Your task to perform on an android device: Open Yahoo.com Image 0: 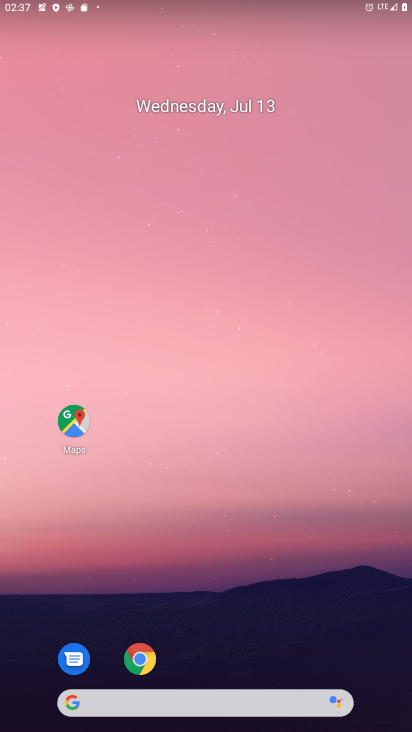
Step 0: drag from (231, 729) to (228, 89)
Your task to perform on an android device: Open Yahoo.com Image 1: 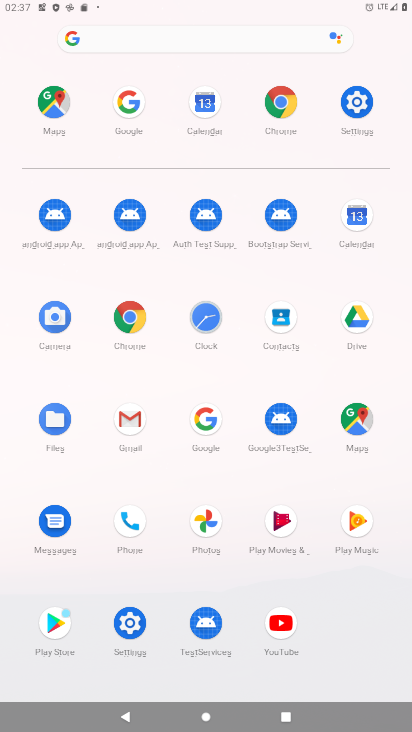
Step 1: click (280, 102)
Your task to perform on an android device: Open Yahoo.com Image 2: 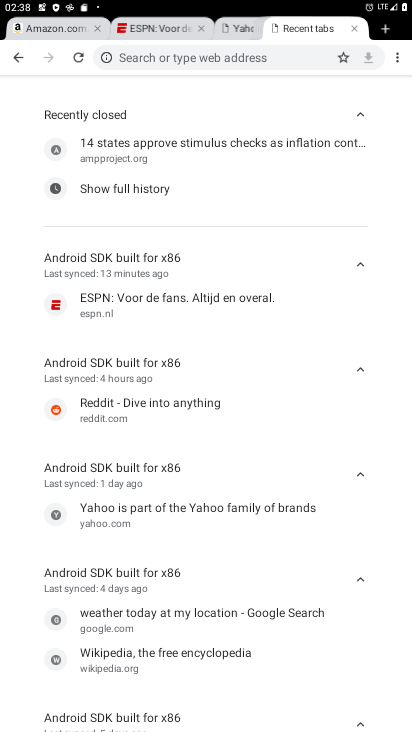
Step 2: click (400, 57)
Your task to perform on an android device: Open Yahoo.com Image 3: 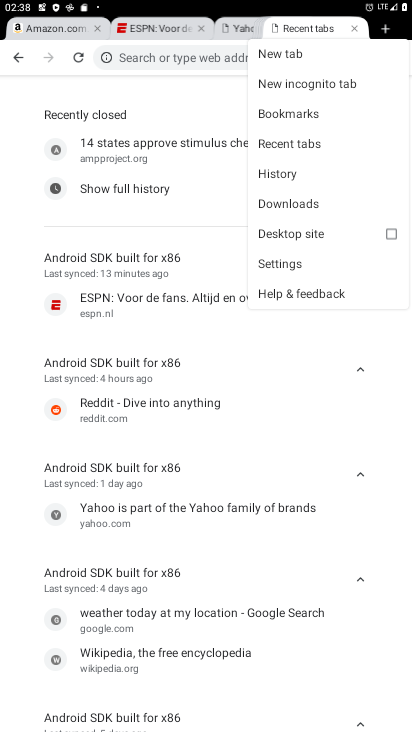
Step 3: click (271, 53)
Your task to perform on an android device: Open Yahoo.com Image 4: 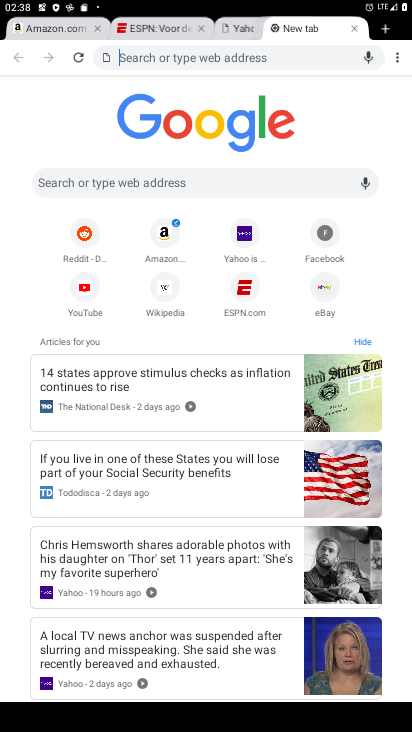
Step 4: click (243, 232)
Your task to perform on an android device: Open Yahoo.com Image 5: 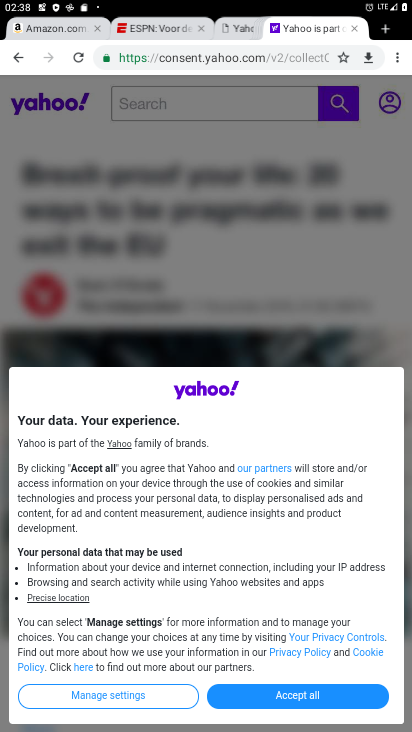
Step 5: task complete